Your task to perform on an android device: Open Maps and search for coffee Image 0: 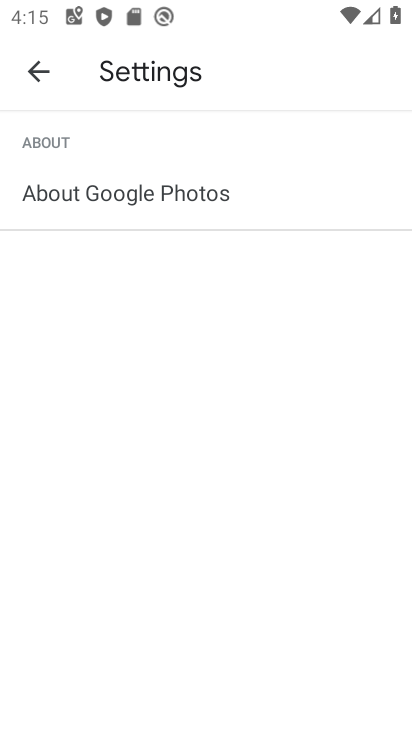
Step 0: press home button
Your task to perform on an android device: Open Maps and search for coffee Image 1: 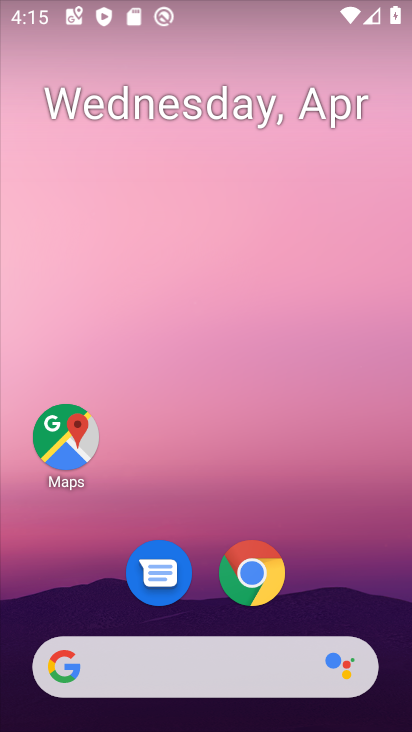
Step 1: click (65, 444)
Your task to perform on an android device: Open Maps and search for coffee Image 2: 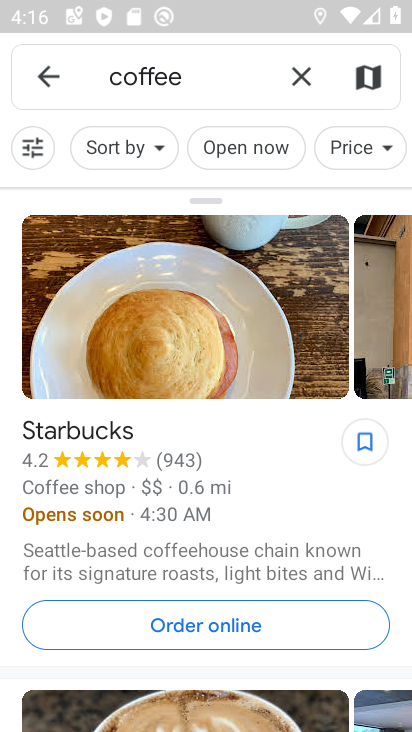
Step 2: task complete